Your task to perform on an android device: Search for a new nail polish Image 0: 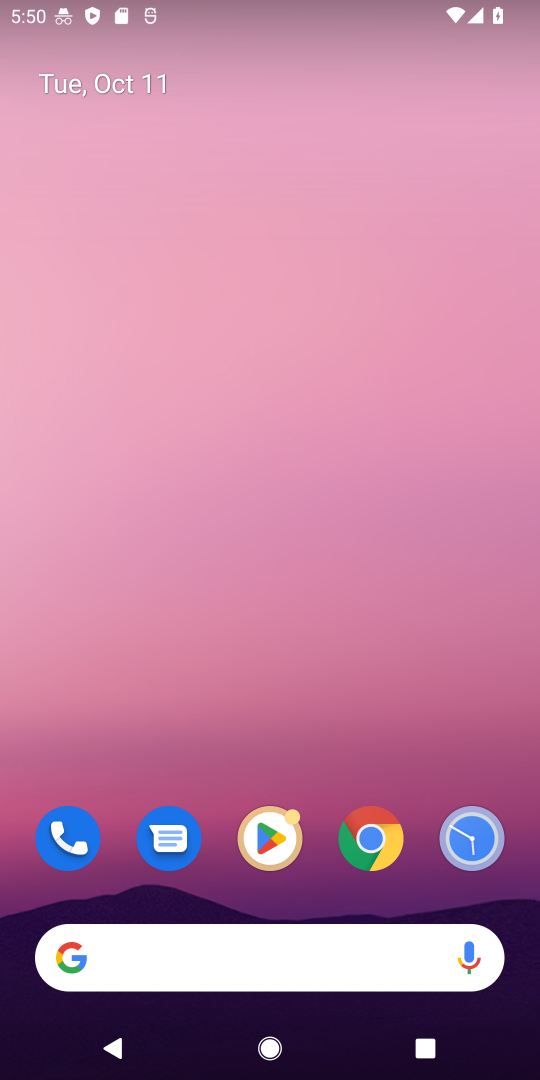
Step 0: click (384, 834)
Your task to perform on an android device: Search for a new nail polish Image 1: 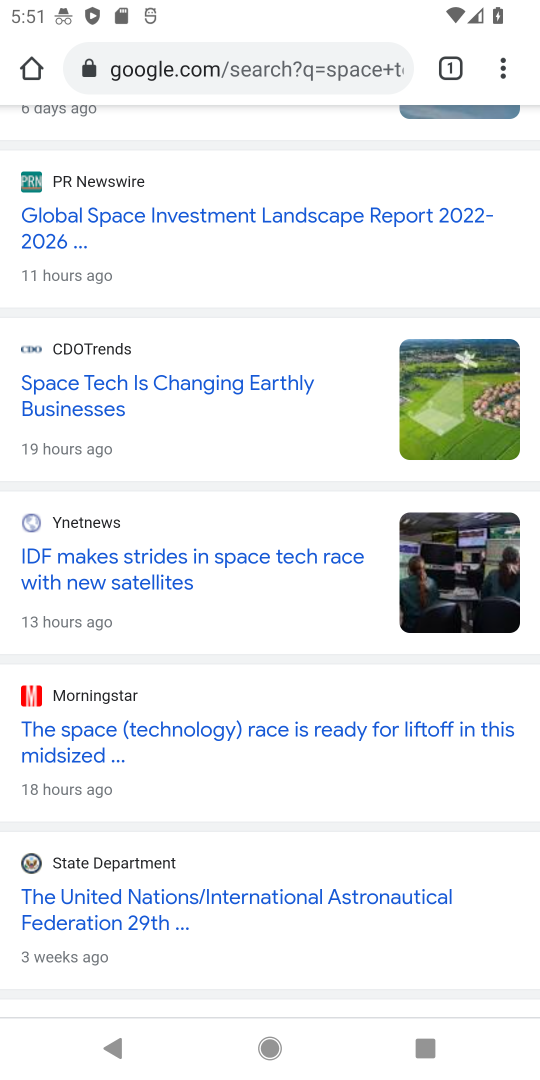
Step 1: click (258, 71)
Your task to perform on an android device: Search for a new nail polish Image 2: 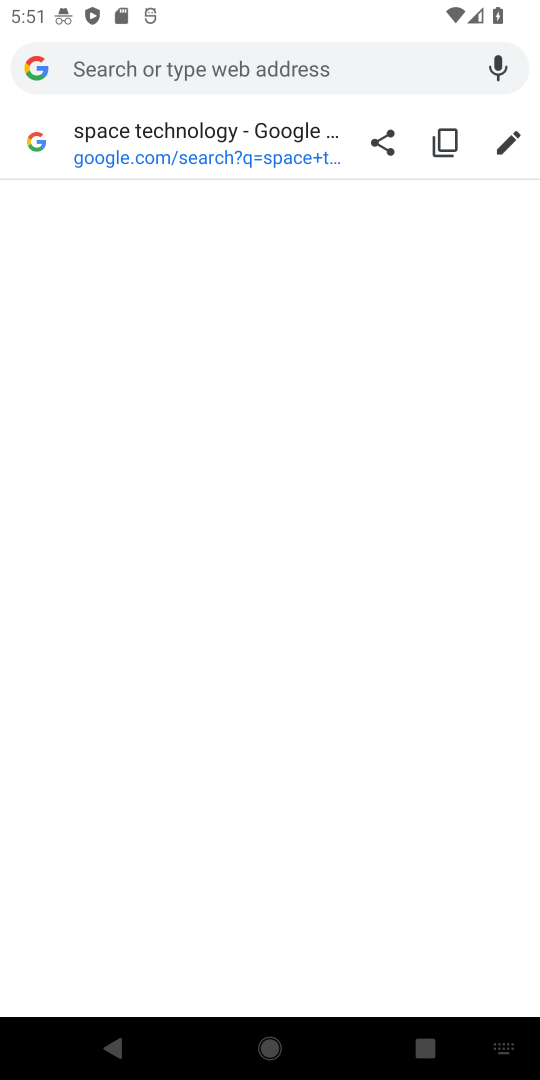
Step 2: type "new nail polish"
Your task to perform on an android device: Search for a new nail polish Image 3: 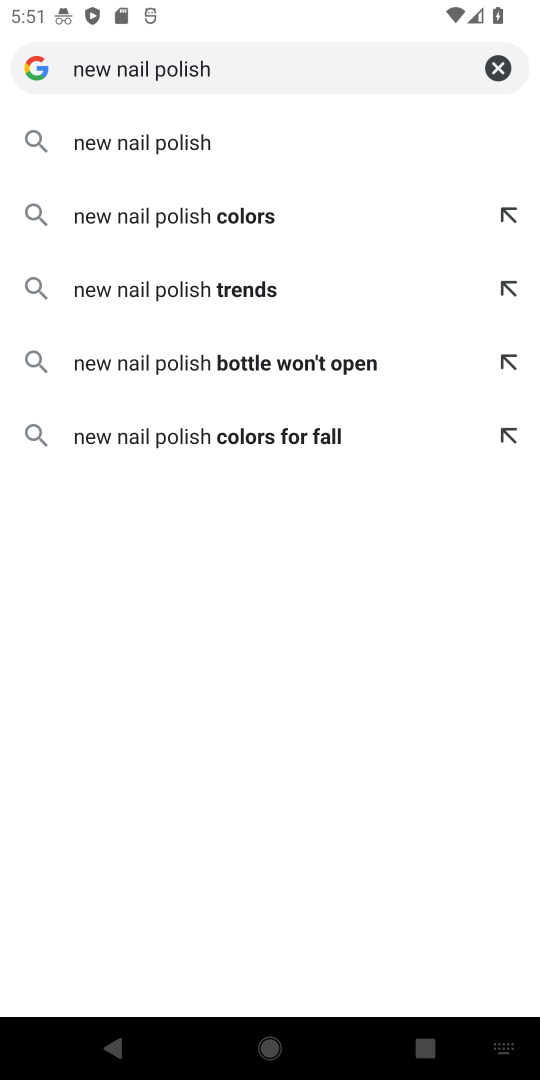
Step 3: click (107, 141)
Your task to perform on an android device: Search for a new nail polish Image 4: 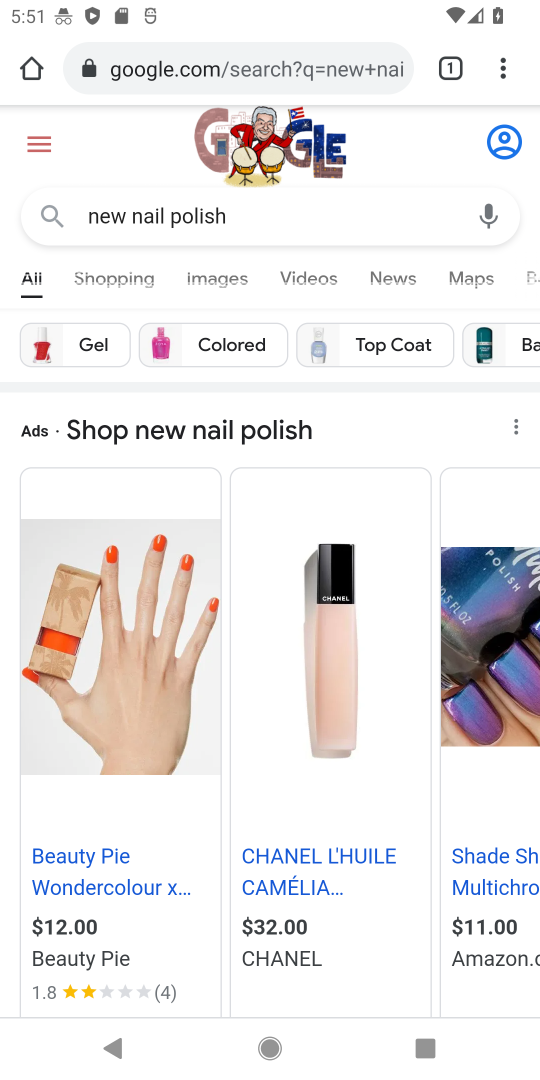
Step 4: task complete